Your task to perform on an android device: toggle translation in the chrome app Image 0: 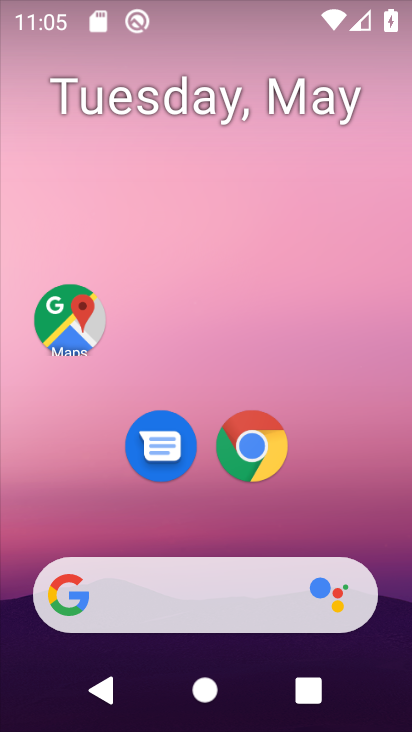
Step 0: click (252, 445)
Your task to perform on an android device: toggle translation in the chrome app Image 1: 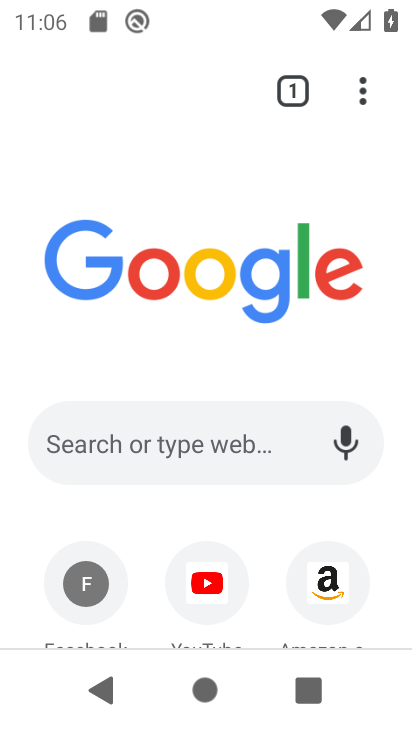
Step 1: click (365, 91)
Your task to perform on an android device: toggle translation in the chrome app Image 2: 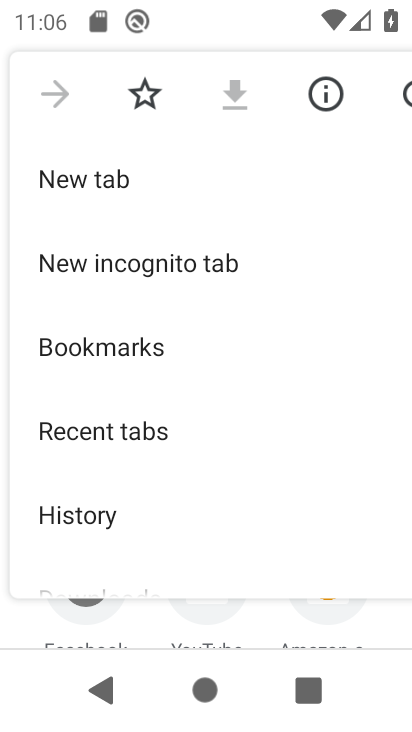
Step 2: drag from (146, 472) to (201, 374)
Your task to perform on an android device: toggle translation in the chrome app Image 3: 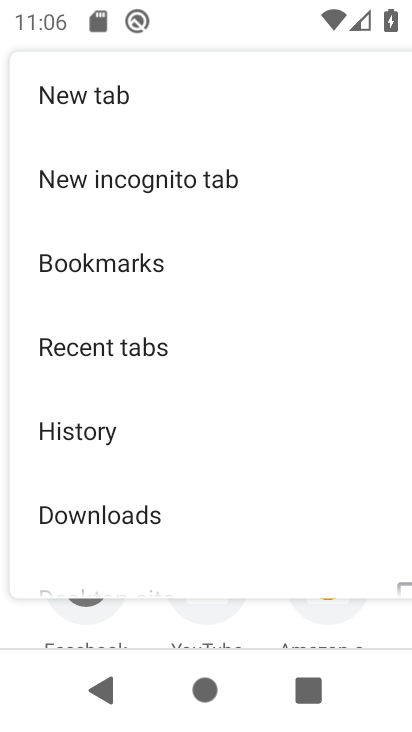
Step 3: drag from (124, 465) to (217, 352)
Your task to perform on an android device: toggle translation in the chrome app Image 4: 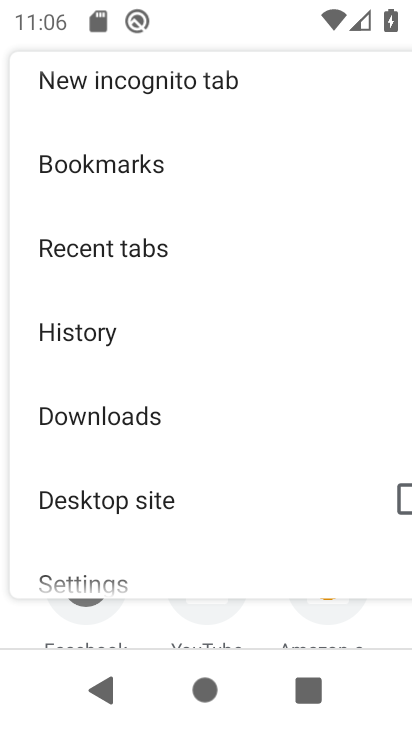
Step 4: drag from (125, 451) to (215, 353)
Your task to perform on an android device: toggle translation in the chrome app Image 5: 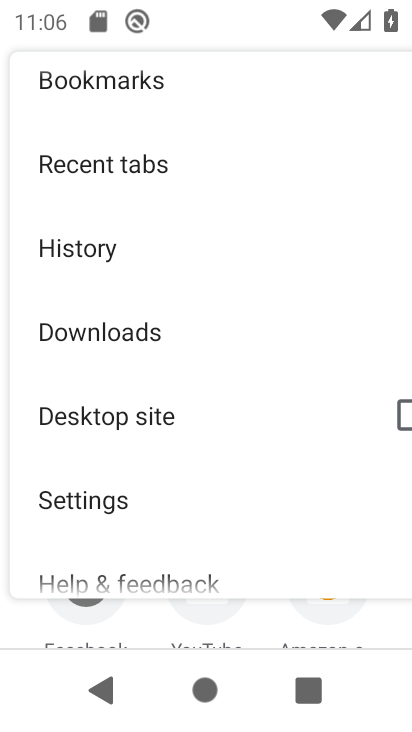
Step 5: drag from (134, 454) to (229, 353)
Your task to perform on an android device: toggle translation in the chrome app Image 6: 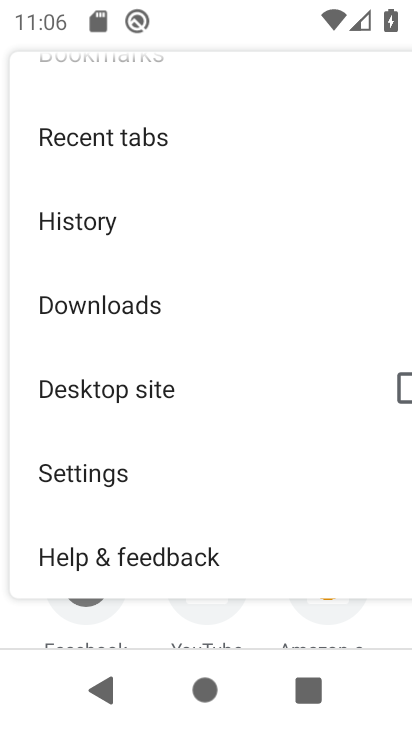
Step 6: click (106, 479)
Your task to perform on an android device: toggle translation in the chrome app Image 7: 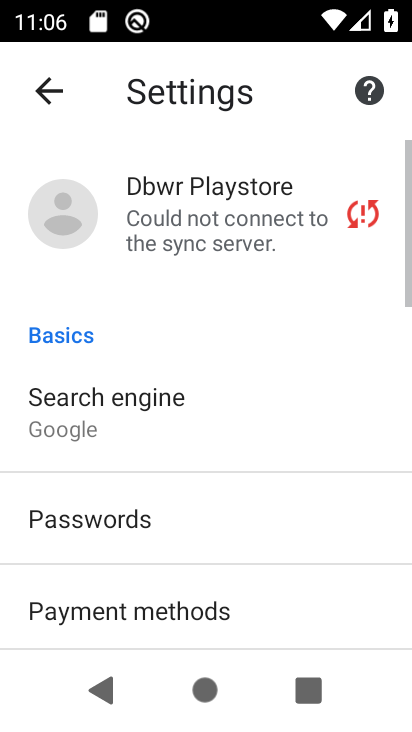
Step 7: drag from (148, 501) to (223, 395)
Your task to perform on an android device: toggle translation in the chrome app Image 8: 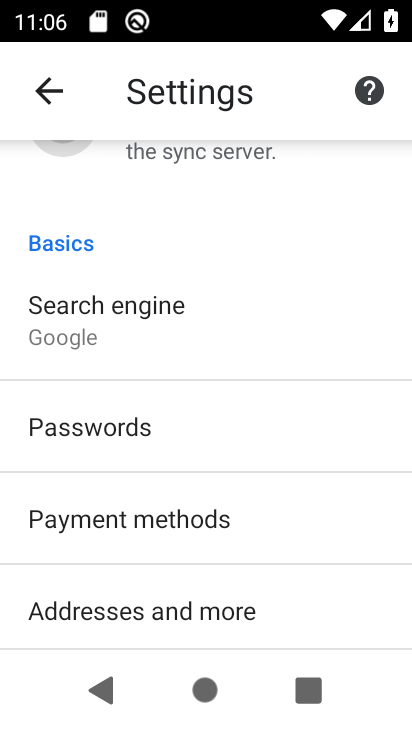
Step 8: drag from (164, 491) to (263, 370)
Your task to perform on an android device: toggle translation in the chrome app Image 9: 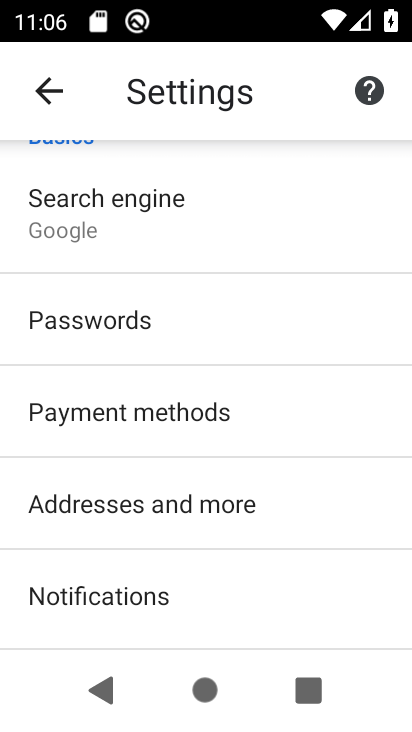
Step 9: drag from (154, 486) to (246, 377)
Your task to perform on an android device: toggle translation in the chrome app Image 10: 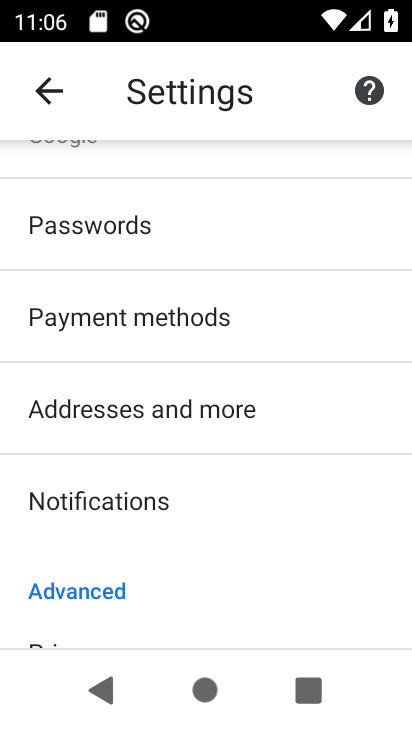
Step 10: drag from (174, 509) to (263, 384)
Your task to perform on an android device: toggle translation in the chrome app Image 11: 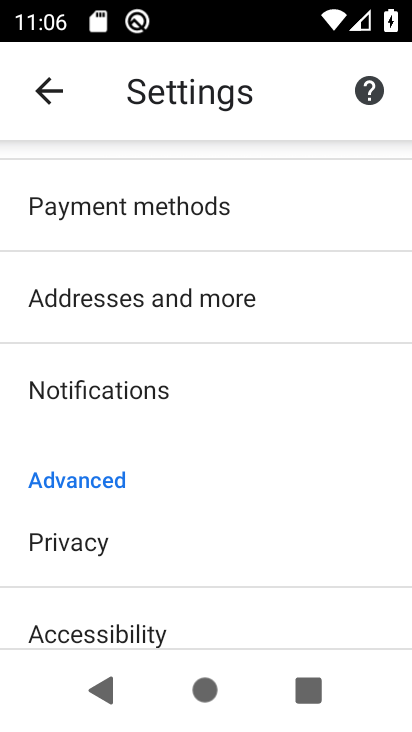
Step 11: drag from (141, 541) to (229, 430)
Your task to perform on an android device: toggle translation in the chrome app Image 12: 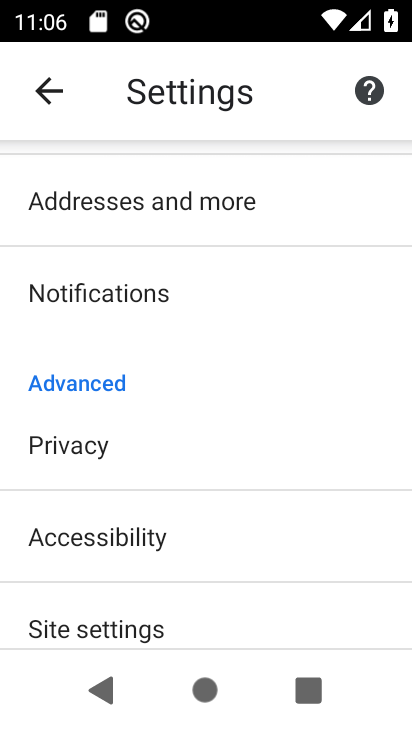
Step 12: drag from (178, 550) to (256, 425)
Your task to perform on an android device: toggle translation in the chrome app Image 13: 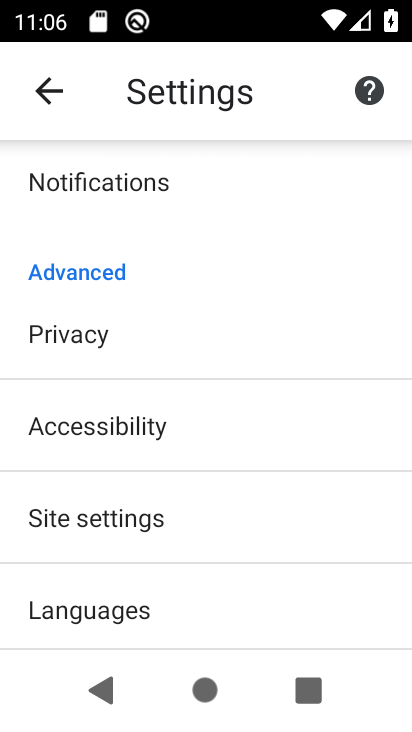
Step 13: drag from (189, 524) to (272, 412)
Your task to perform on an android device: toggle translation in the chrome app Image 14: 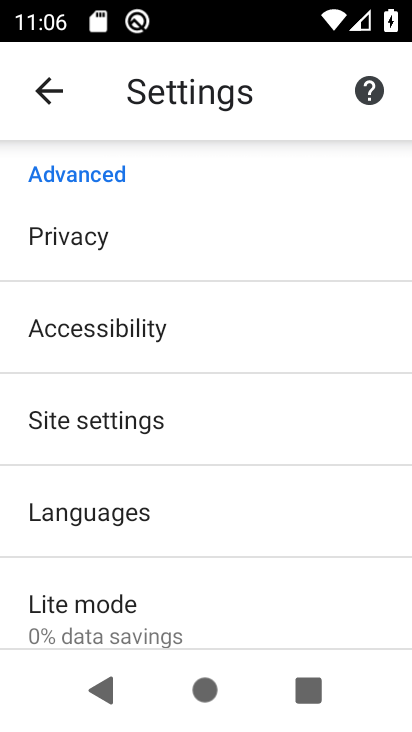
Step 14: click (148, 519)
Your task to perform on an android device: toggle translation in the chrome app Image 15: 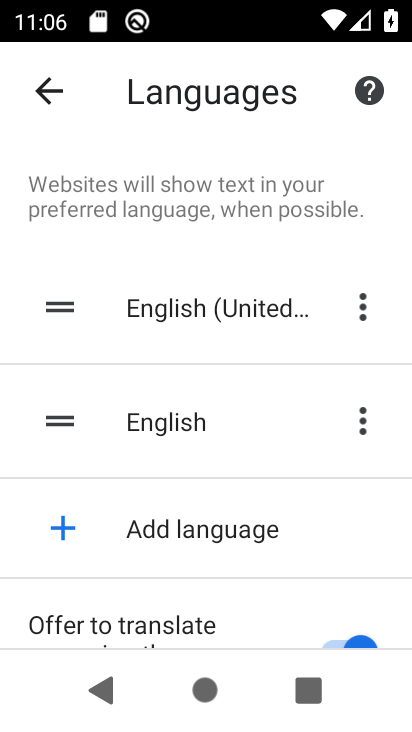
Step 15: drag from (289, 605) to (313, 478)
Your task to perform on an android device: toggle translation in the chrome app Image 16: 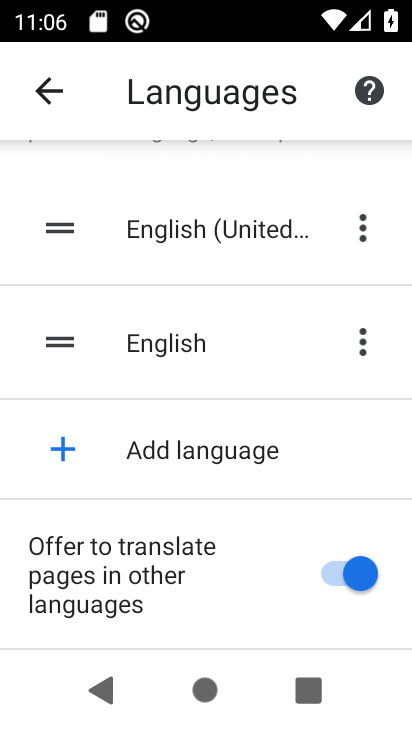
Step 16: click (337, 576)
Your task to perform on an android device: toggle translation in the chrome app Image 17: 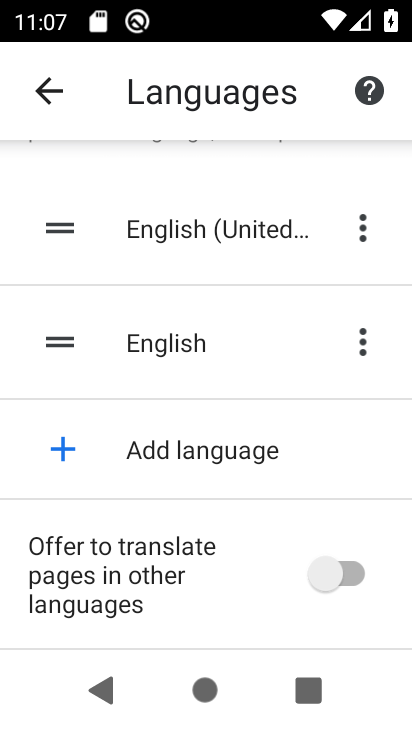
Step 17: task complete